Your task to perform on an android device: toggle airplane mode Image 0: 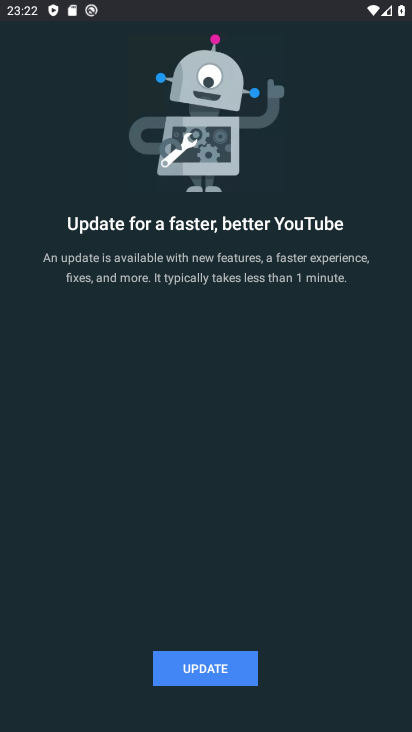
Step 0: press back button
Your task to perform on an android device: toggle airplane mode Image 1: 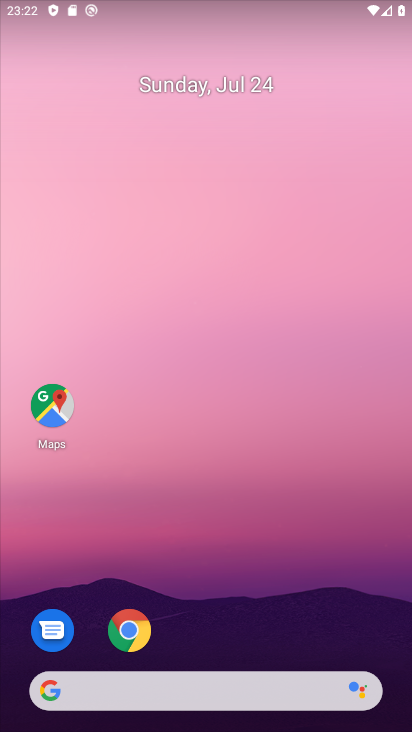
Step 1: drag from (286, 630) to (254, 0)
Your task to perform on an android device: toggle airplane mode Image 2: 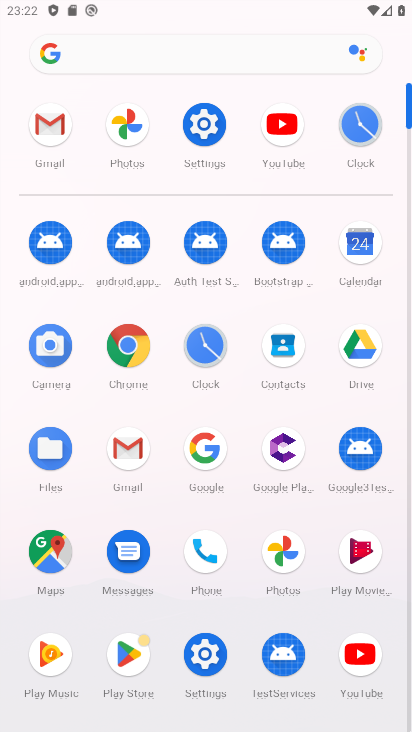
Step 2: click (197, 121)
Your task to perform on an android device: toggle airplane mode Image 3: 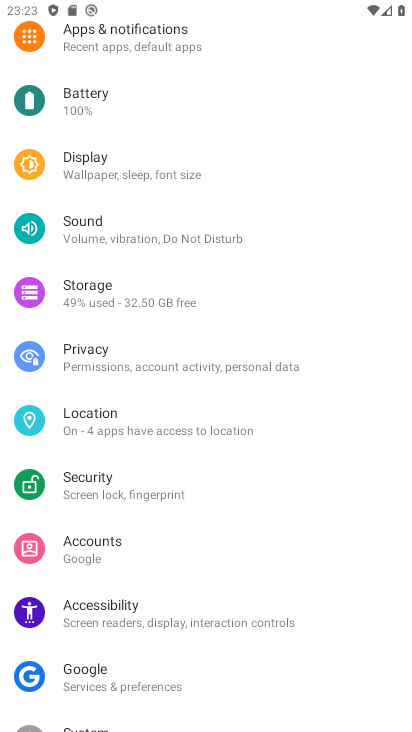
Step 3: drag from (175, 141) to (174, 523)
Your task to perform on an android device: toggle airplane mode Image 4: 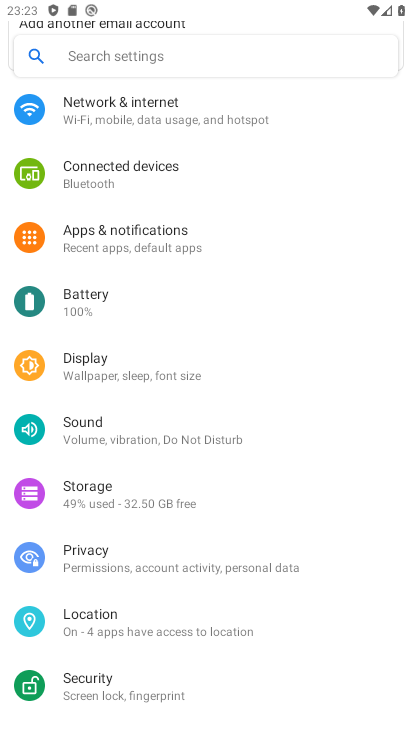
Step 4: click (122, 95)
Your task to perform on an android device: toggle airplane mode Image 5: 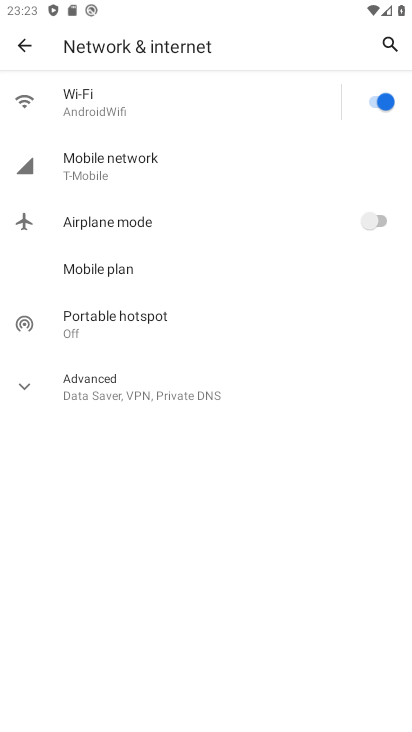
Step 5: click (378, 223)
Your task to perform on an android device: toggle airplane mode Image 6: 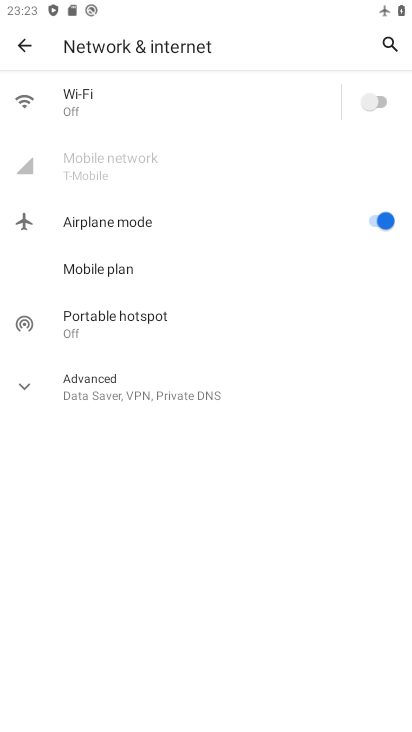
Step 6: task complete